Your task to perform on an android device: Open Maps and search for coffee Image 0: 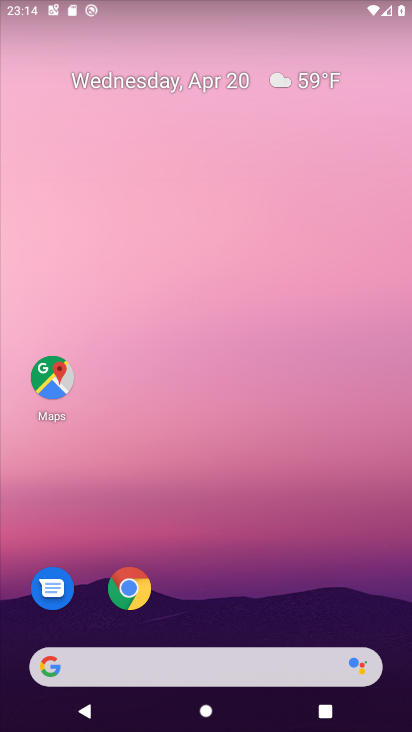
Step 0: drag from (229, 611) to (235, 107)
Your task to perform on an android device: Open Maps and search for coffee Image 1: 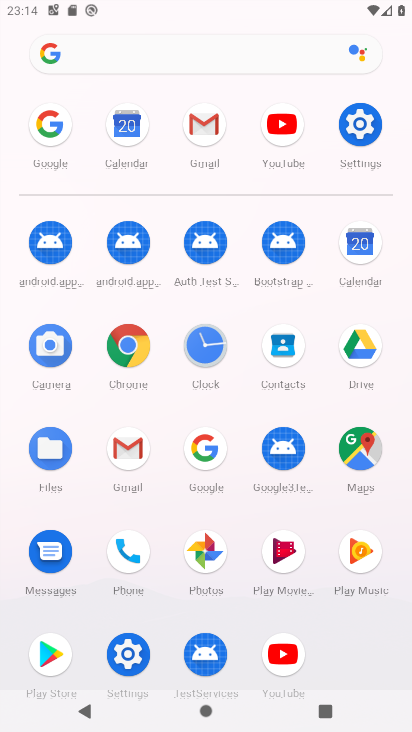
Step 1: click (360, 454)
Your task to perform on an android device: Open Maps and search for coffee Image 2: 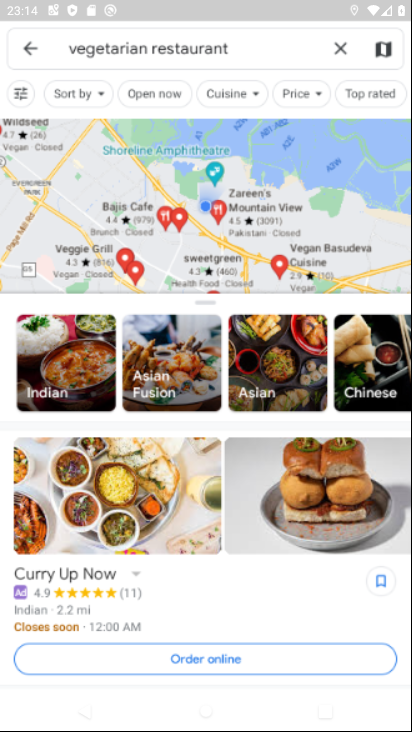
Step 2: click (339, 47)
Your task to perform on an android device: Open Maps and search for coffee Image 3: 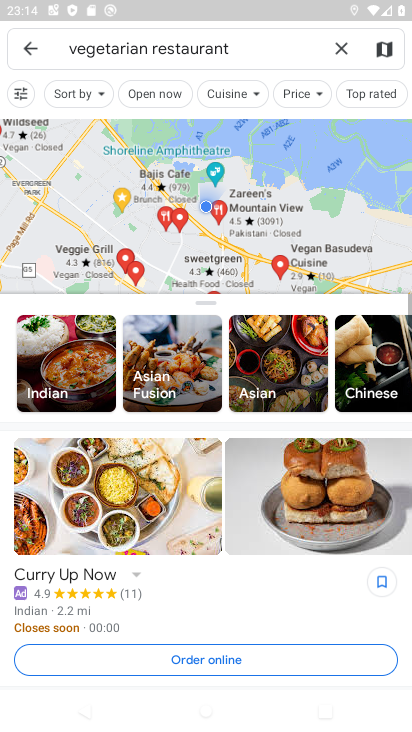
Step 3: click (342, 44)
Your task to perform on an android device: Open Maps and search for coffee Image 4: 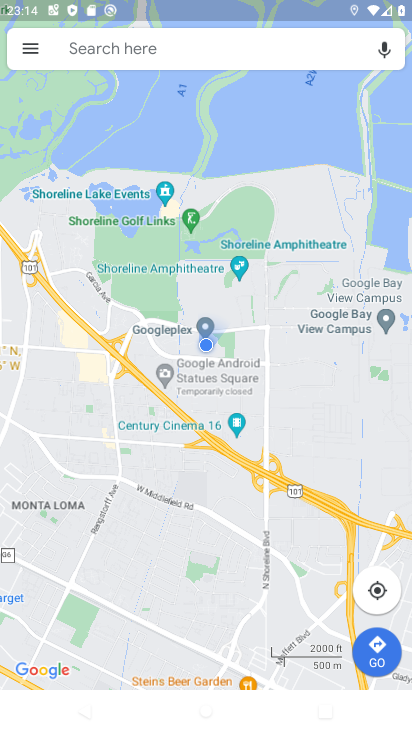
Step 4: click (167, 49)
Your task to perform on an android device: Open Maps and search for coffee Image 5: 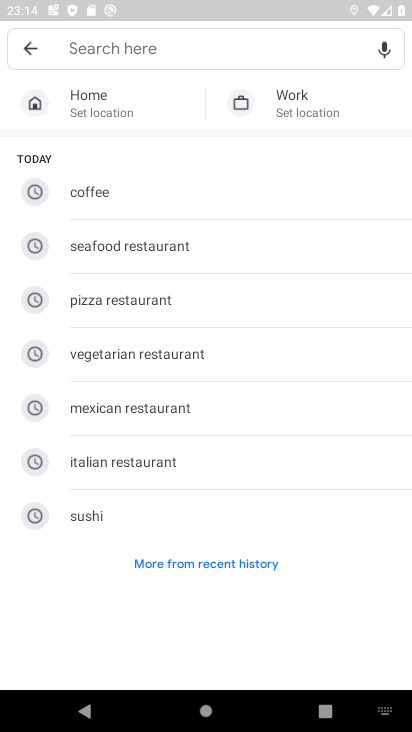
Step 5: type "coffee"
Your task to perform on an android device: Open Maps and search for coffee Image 6: 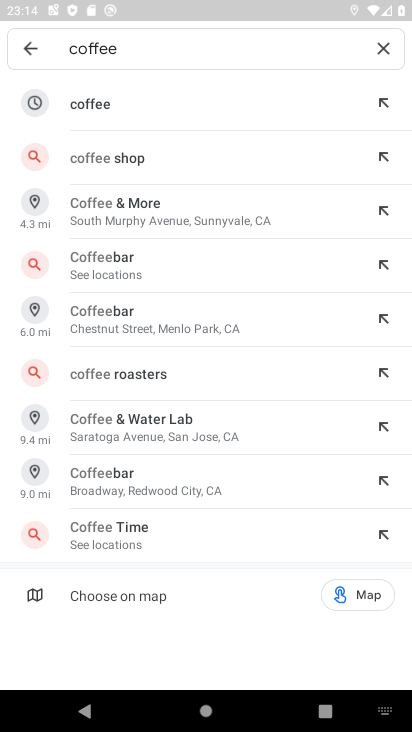
Step 6: click (91, 101)
Your task to perform on an android device: Open Maps and search for coffee Image 7: 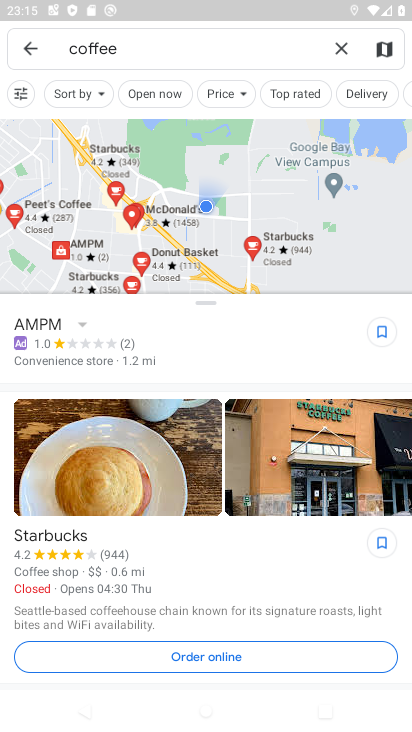
Step 7: task complete